Your task to perform on an android device: Open display settings Image 0: 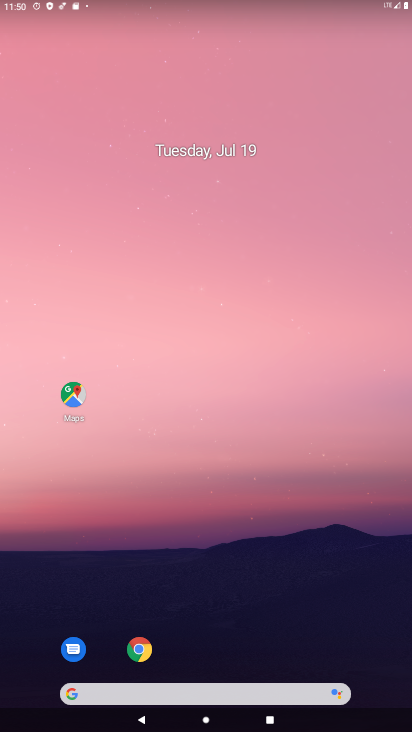
Step 0: drag from (227, 728) to (253, 153)
Your task to perform on an android device: Open display settings Image 1: 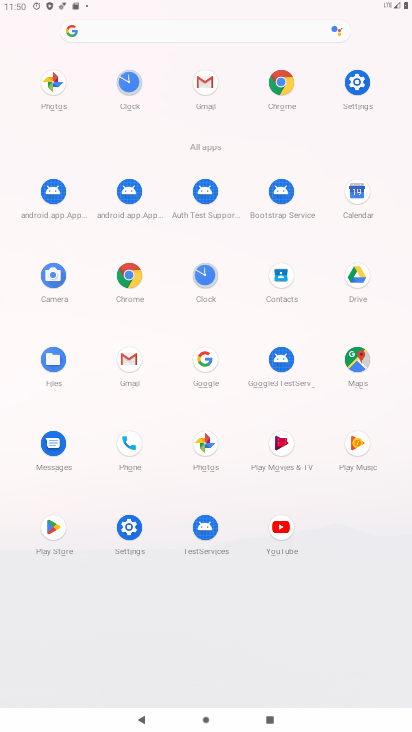
Step 1: click (356, 73)
Your task to perform on an android device: Open display settings Image 2: 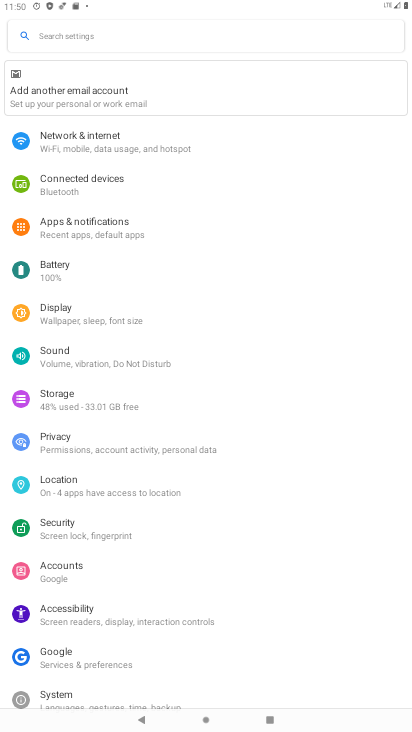
Step 2: click (68, 315)
Your task to perform on an android device: Open display settings Image 3: 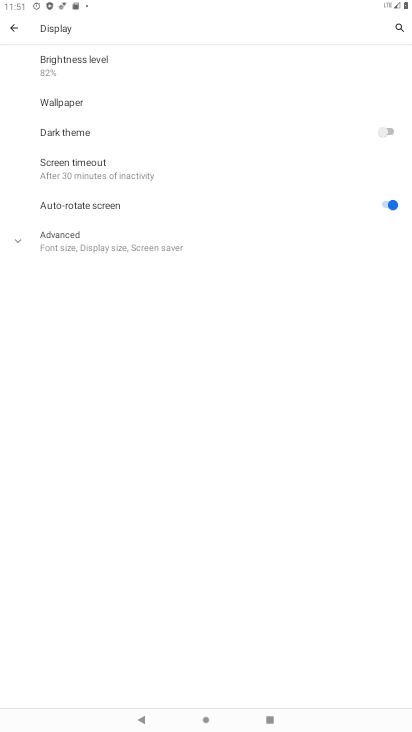
Step 3: task complete